Your task to perform on an android device: change notification settings in the gmail app Image 0: 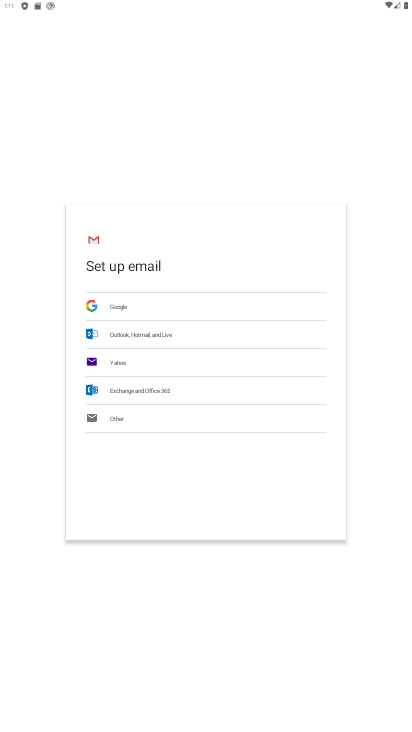
Step 0: press home button
Your task to perform on an android device: change notification settings in the gmail app Image 1: 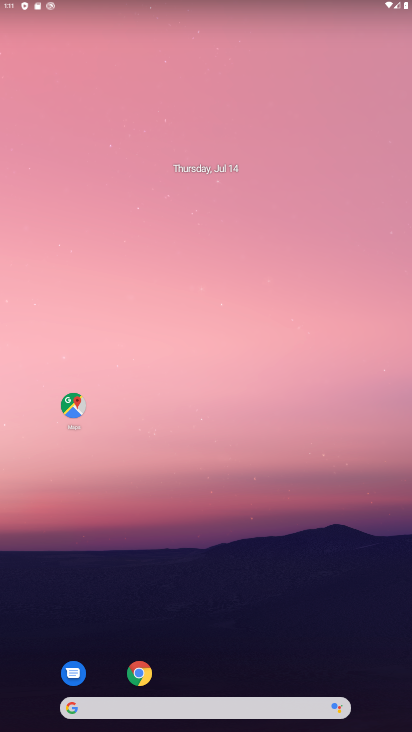
Step 1: drag from (282, 516) to (346, 82)
Your task to perform on an android device: change notification settings in the gmail app Image 2: 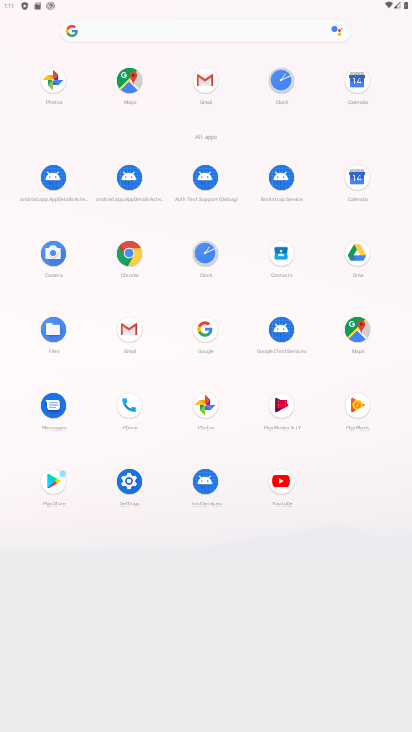
Step 2: click (200, 85)
Your task to perform on an android device: change notification settings in the gmail app Image 3: 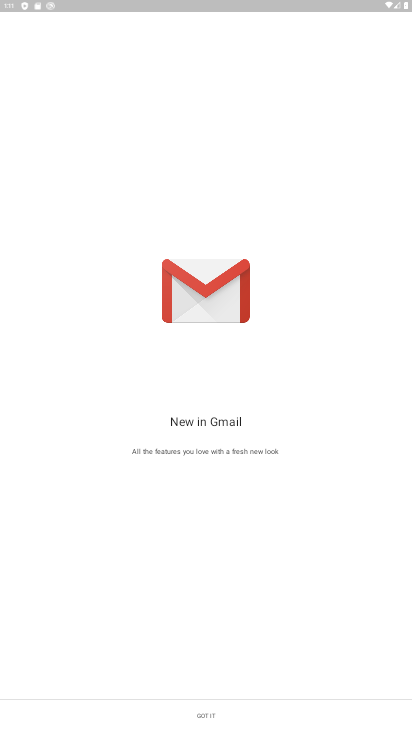
Step 3: click (277, 709)
Your task to perform on an android device: change notification settings in the gmail app Image 4: 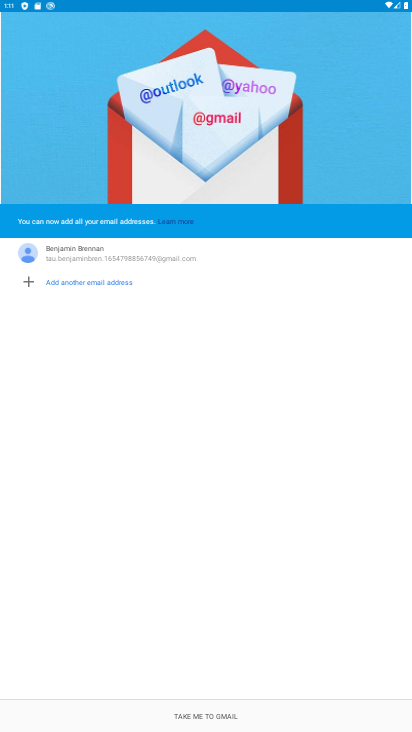
Step 4: click (277, 709)
Your task to perform on an android device: change notification settings in the gmail app Image 5: 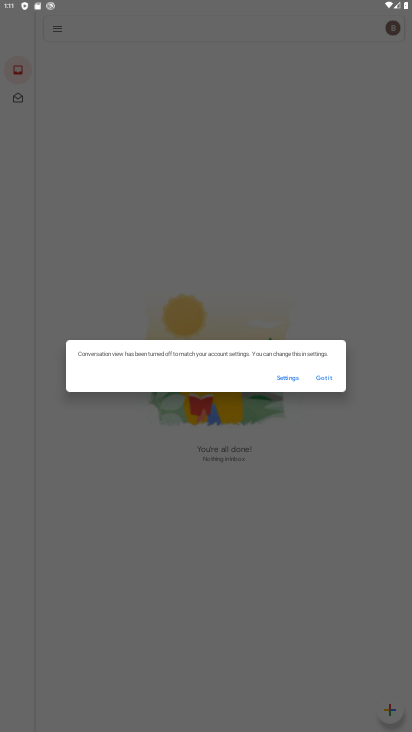
Step 5: click (319, 371)
Your task to perform on an android device: change notification settings in the gmail app Image 6: 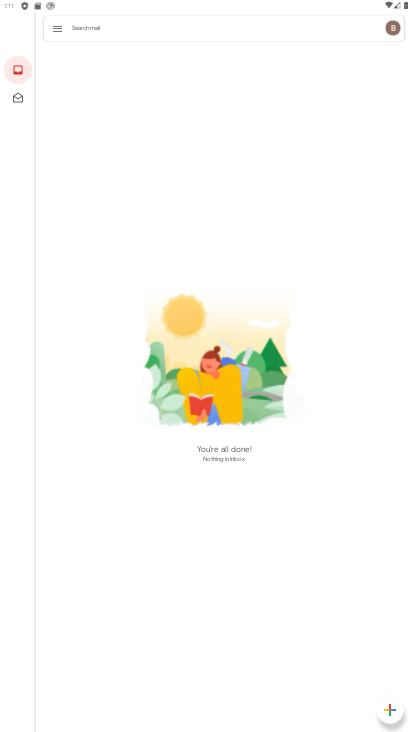
Step 6: click (53, 31)
Your task to perform on an android device: change notification settings in the gmail app Image 7: 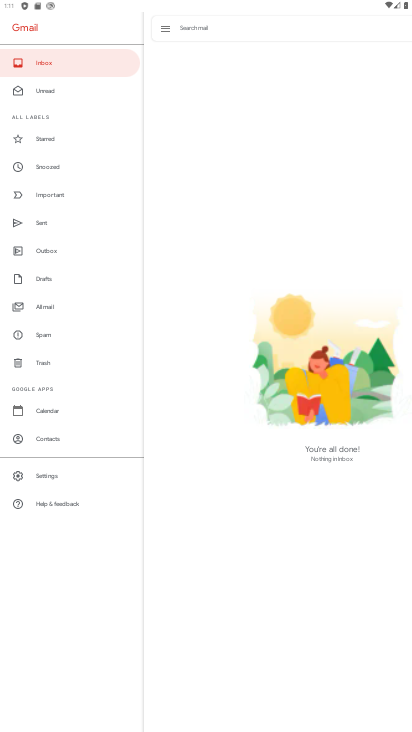
Step 7: click (50, 477)
Your task to perform on an android device: change notification settings in the gmail app Image 8: 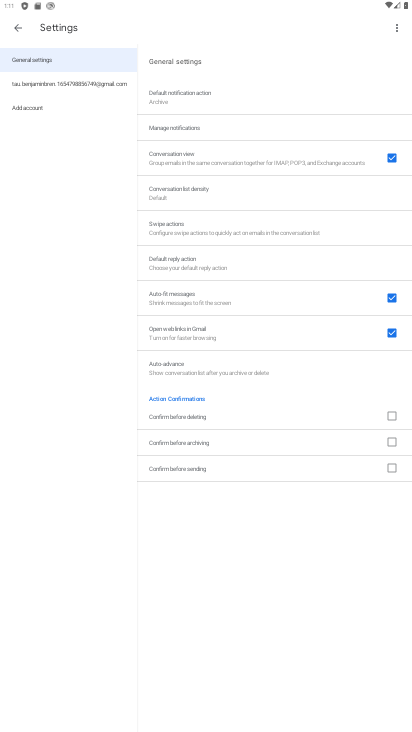
Step 8: click (105, 79)
Your task to perform on an android device: change notification settings in the gmail app Image 9: 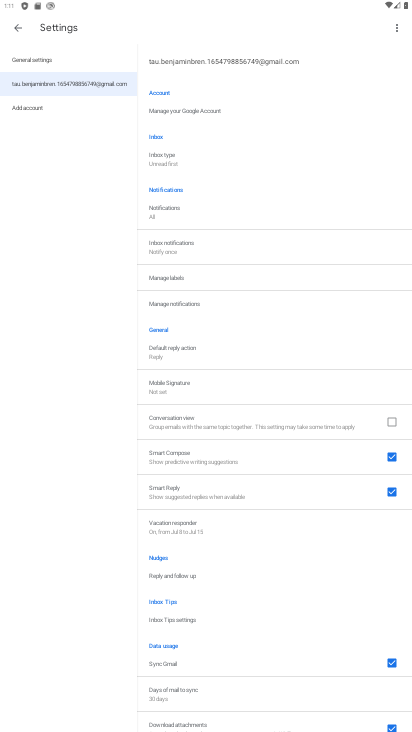
Step 9: click (176, 296)
Your task to perform on an android device: change notification settings in the gmail app Image 10: 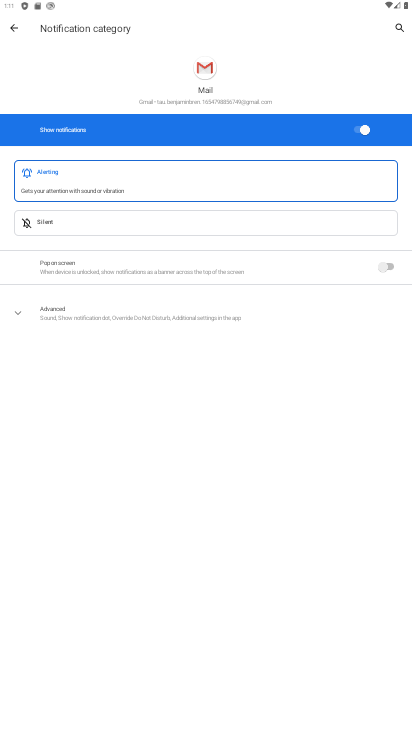
Step 10: click (356, 132)
Your task to perform on an android device: change notification settings in the gmail app Image 11: 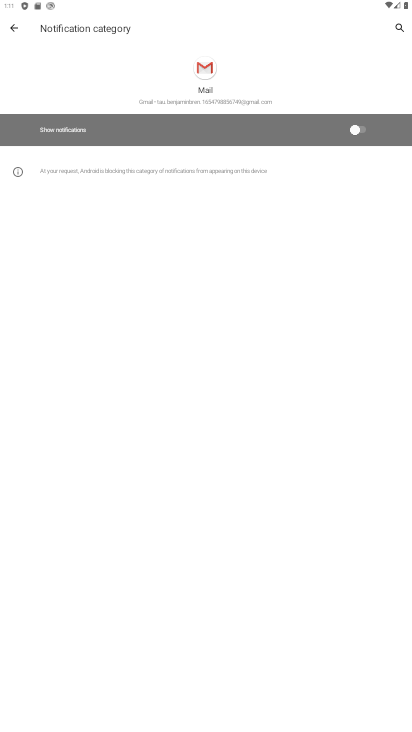
Step 11: task complete